Your task to perform on an android device: change the clock style Image 0: 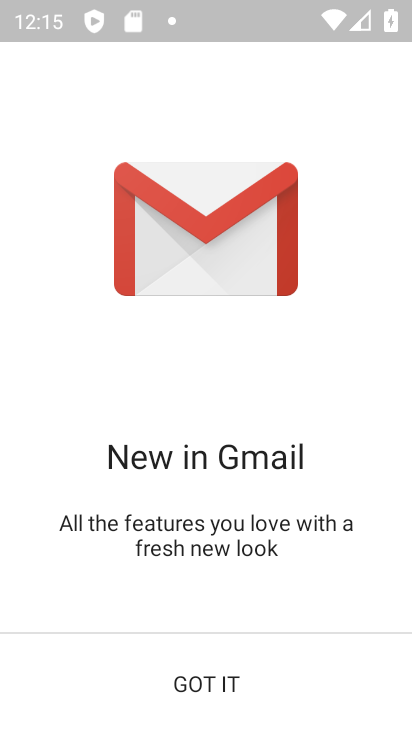
Step 0: click (204, 682)
Your task to perform on an android device: change the clock style Image 1: 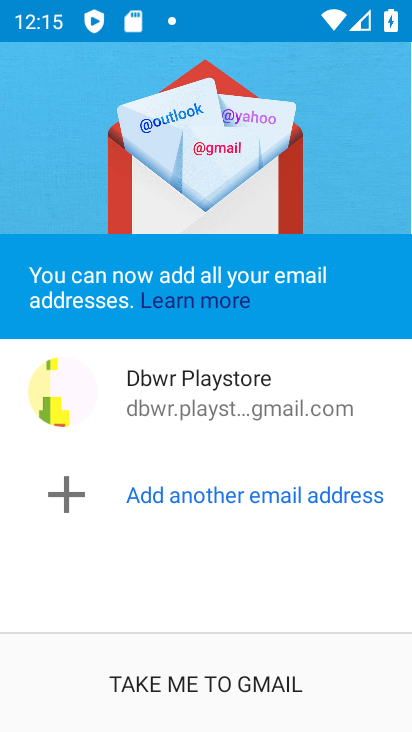
Step 1: press home button
Your task to perform on an android device: change the clock style Image 2: 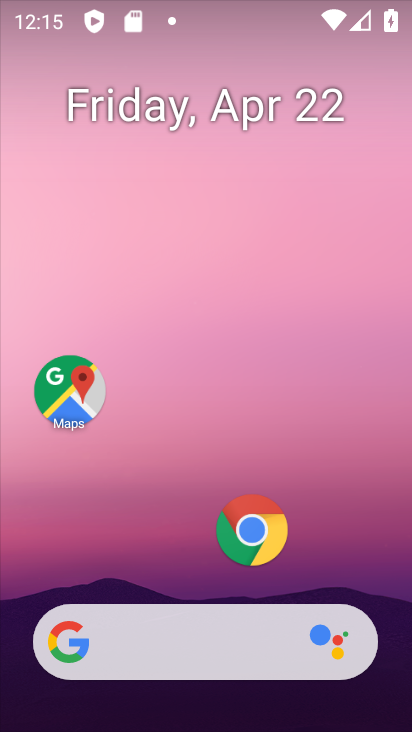
Step 2: drag from (203, 667) to (204, 170)
Your task to perform on an android device: change the clock style Image 3: 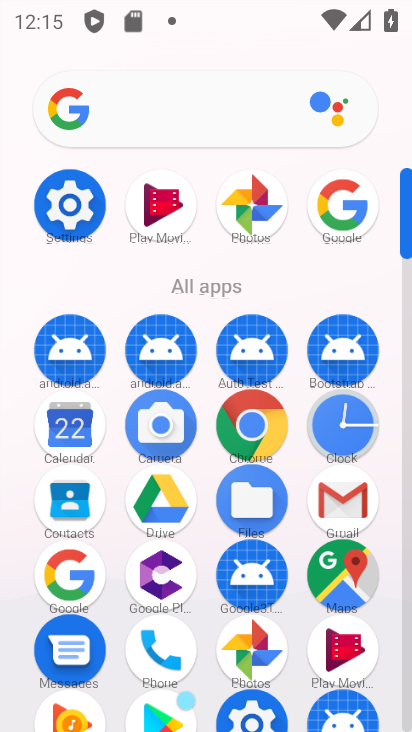
Step 3: click (349, 426)
Your task to perform on an android device: change the clock style Image 4: 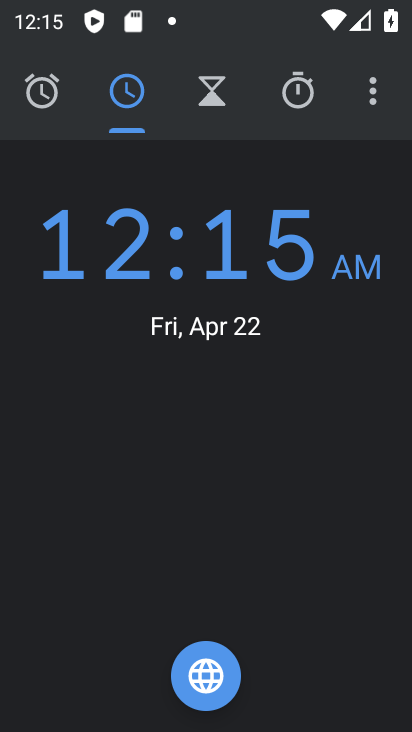
Step 4: click (375, 92)
Your task to perform on an android device: change the clock style Image 5: 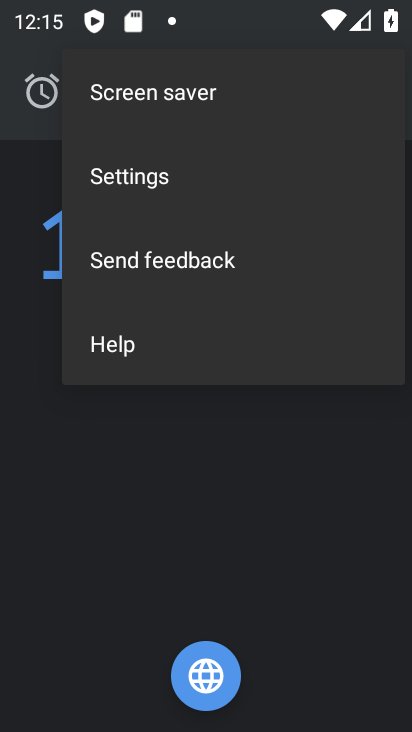
Step 5: click (112, 173)
Your task to perform on an android device: change the clock style Image 6: 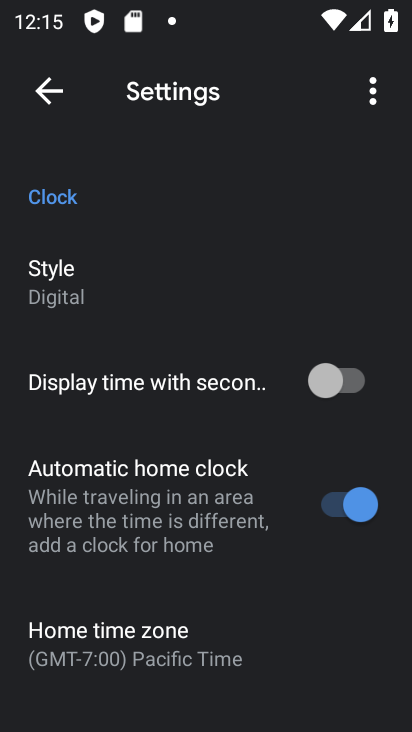
Step 6: click (59, 285)
Your task to perform on an android device: change the clock style Image 7: 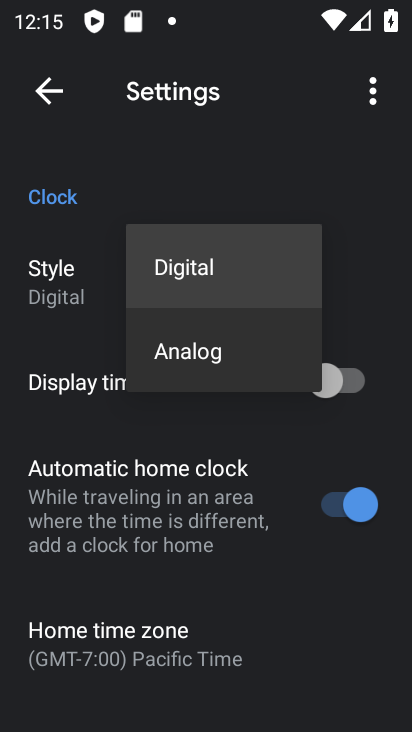
Step 7: click (173, 344)
Your task to perform on an android device: change the clock style Image 8: 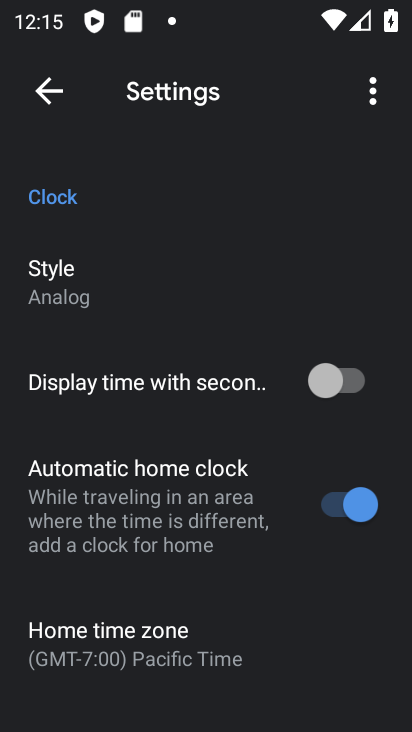
Step 8: task complete